Your task to perform on an android device: Open Google Chrome and open the bookmarks view Image 0: 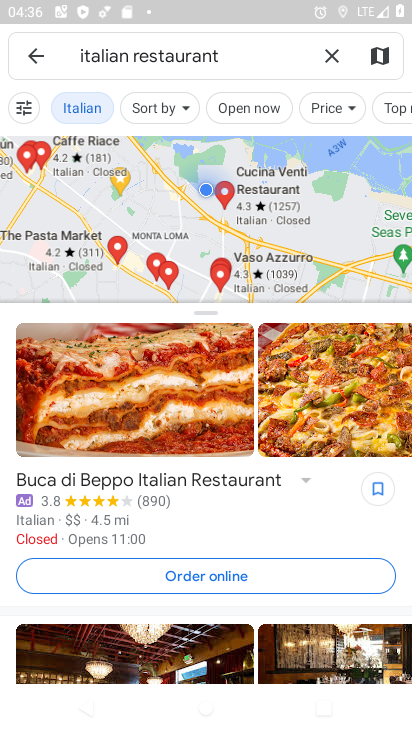
Step 0: press home button
Your task to perform on an android device: Open Google Chrome and open the bookmarks view Image 1: 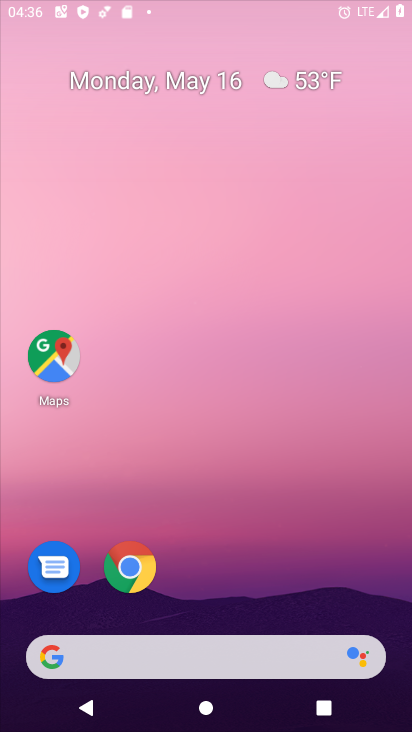
Step 1: drag from (267, 644) to (285, 0)
Your task to perform on an android device: Open Google Chrome and open the bookmarks view Image 2: 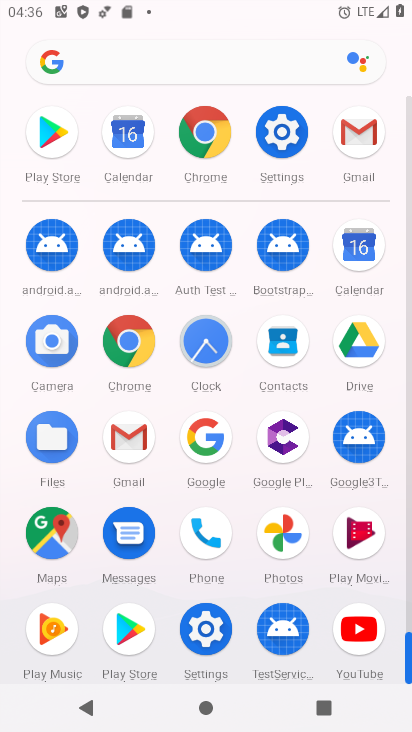
Step 2: click (141, 331)
Your task to perform on an android device: Open Google Chrome and open the bookmarks view Image 3: 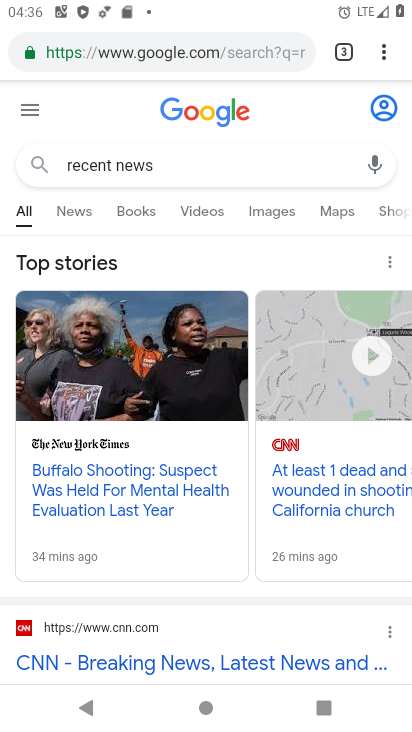
Step 3: task complete